Your task to perform on an android device: toggle pop-ups in chrome Image 0: 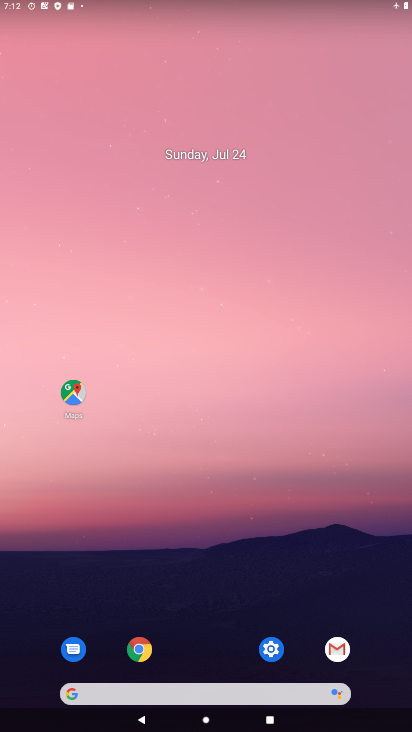
Step 0: drag from (219, 660) to (269, 124)
Your task to perform on an android device: toggle pop-ups in chrome Image 1: 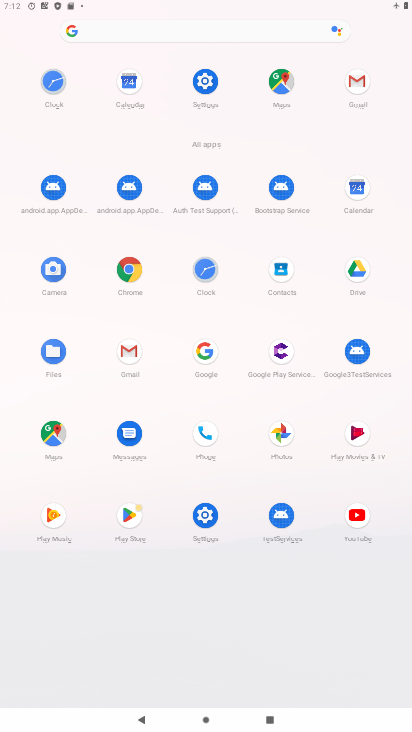
Step 1: click (125, 270)
Your task to perform on an android device: toggle pop-ups in chrome Image 2: 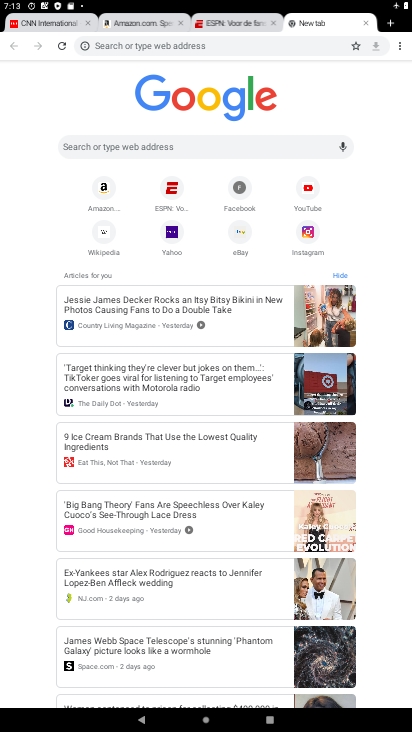
Step 2: click (397, 57)
Your task to perform on an android device: toggle pop-ups in chrome Image 3: 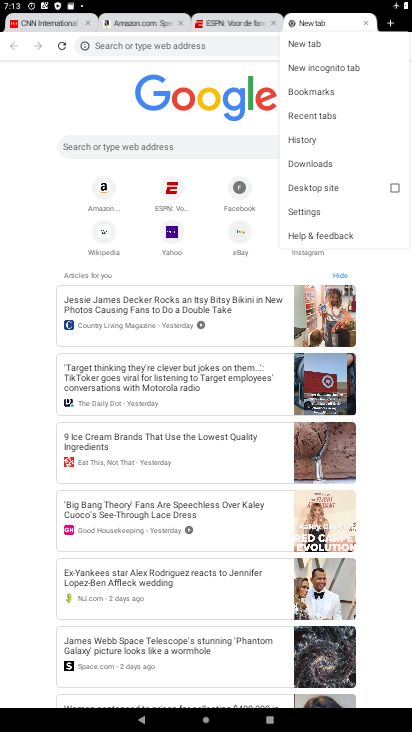
Step 3: click (311, 211)
Your task to perform on an android device: toggle pop-ups in chrome Image 4: 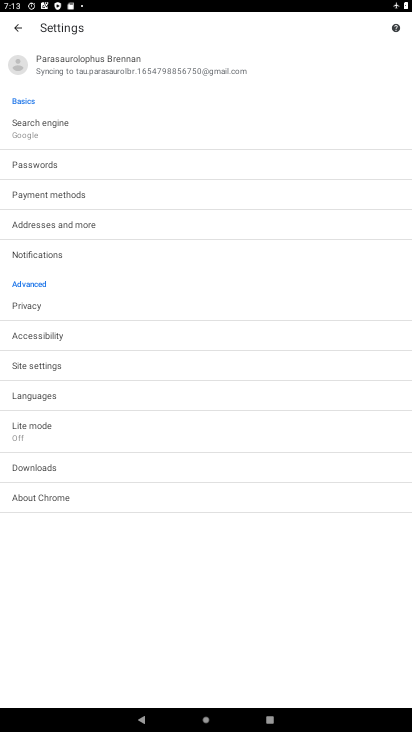
Step 4: click (70, 362)
Your task to perform on an android device: toggle pop-ups in chrome Image 5: 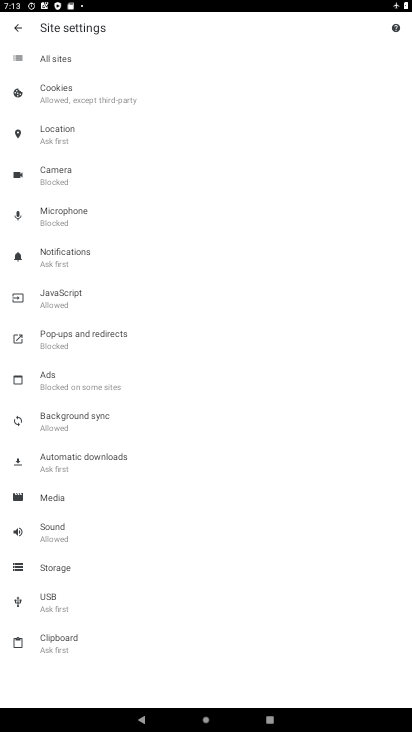
Step 5: click (98, 335)
Your task to perform on an android device: toggle pop-ups in chrome Image 6: 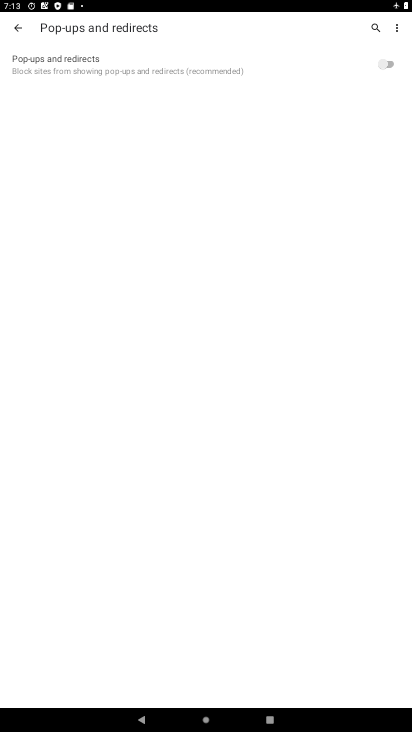
Step 6: task complete